Your task to perform on an android device: turn on sleep mode Image 0: 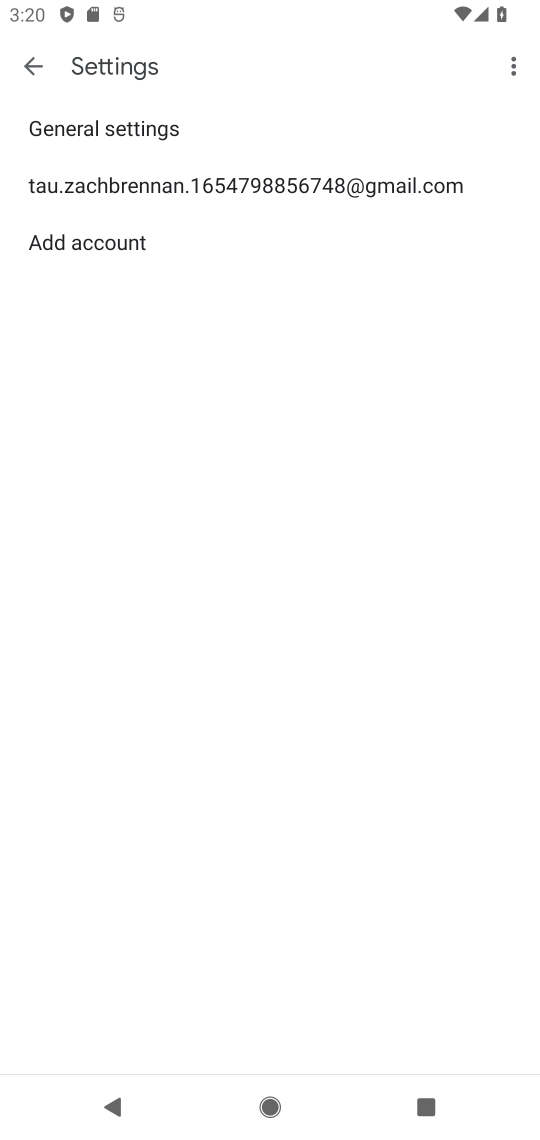
Step 0: press home button
Your task to perform on an android device: turn on sleep mode Image 1: 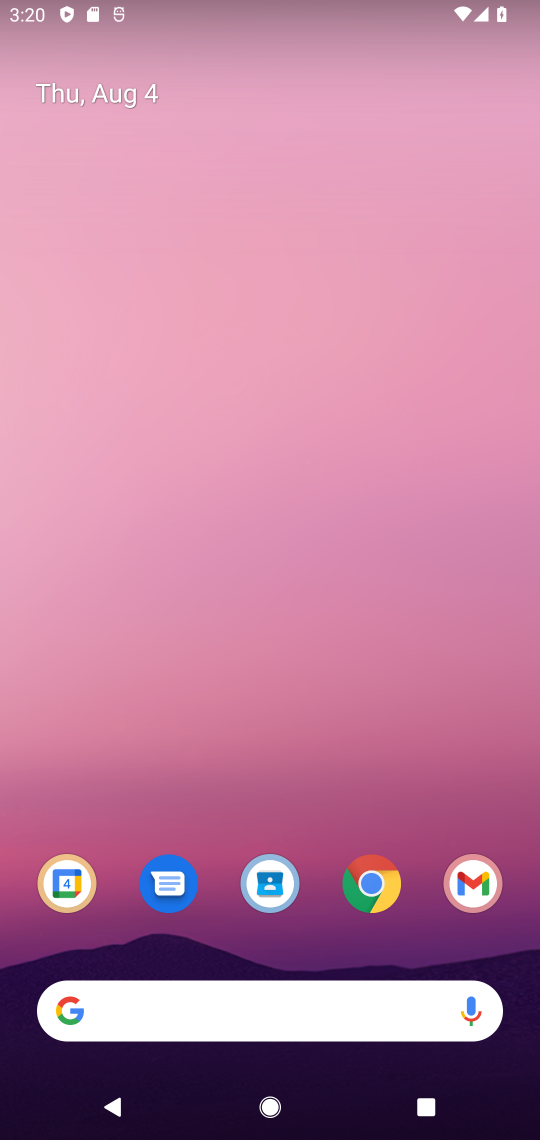
Step 1: drag from (506, 771) to (258, 30)
Your task to perform on an android device: turn on sleep mode Image 2: 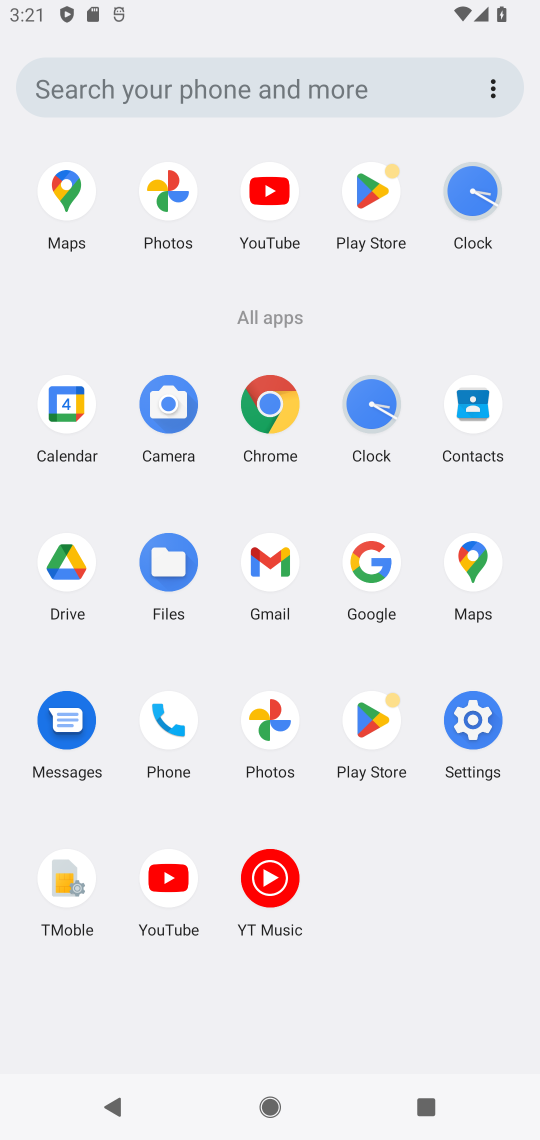
Step 2: click (451, 747)
Your task to perform on an android device: turn on sleep mode Image 3: 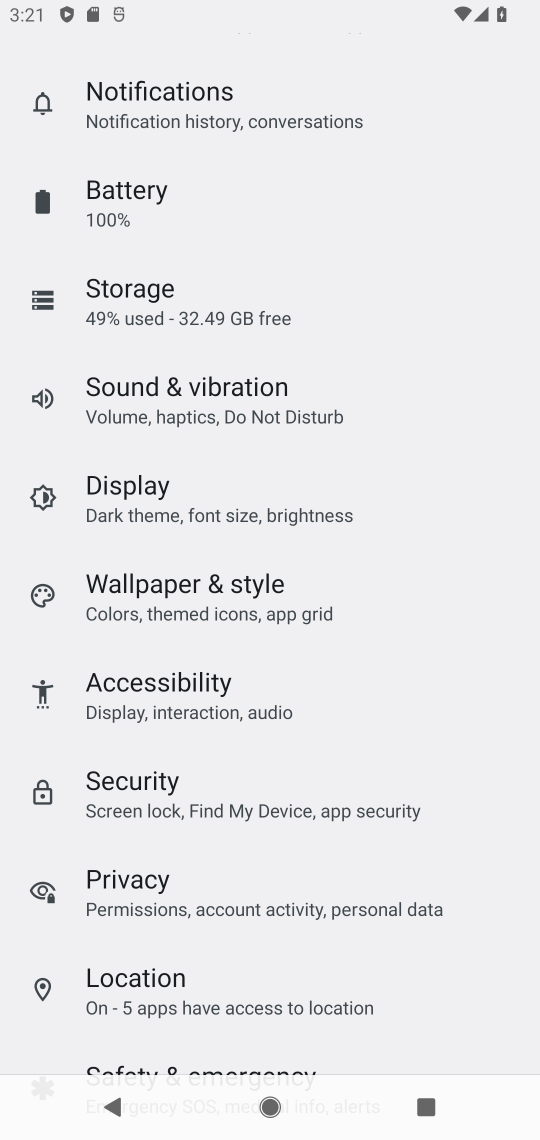
Step 3: task complete